Your task to perform on an android device: Is it going to rain today? Image 0: 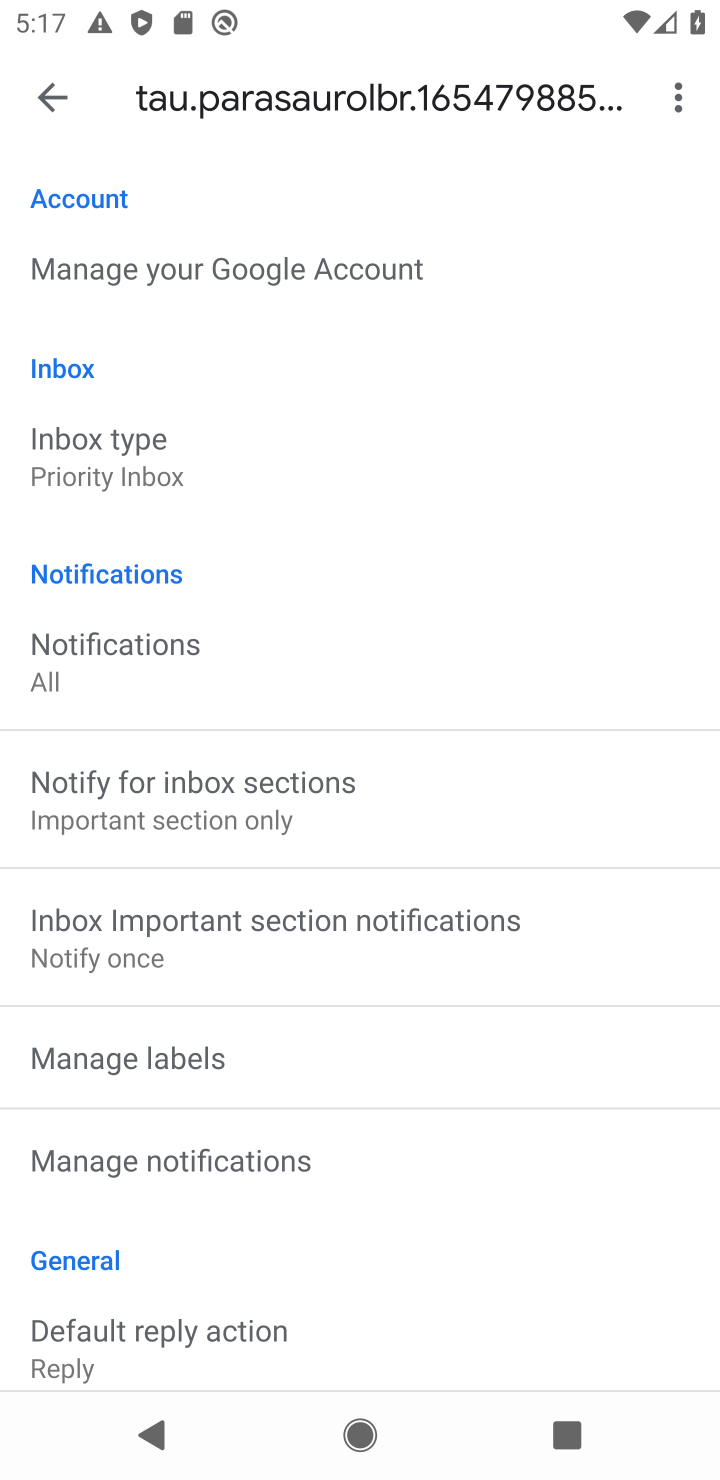
Step 0: press home button
Your task to perform on an android device: Is it going to rain today? Image 1: 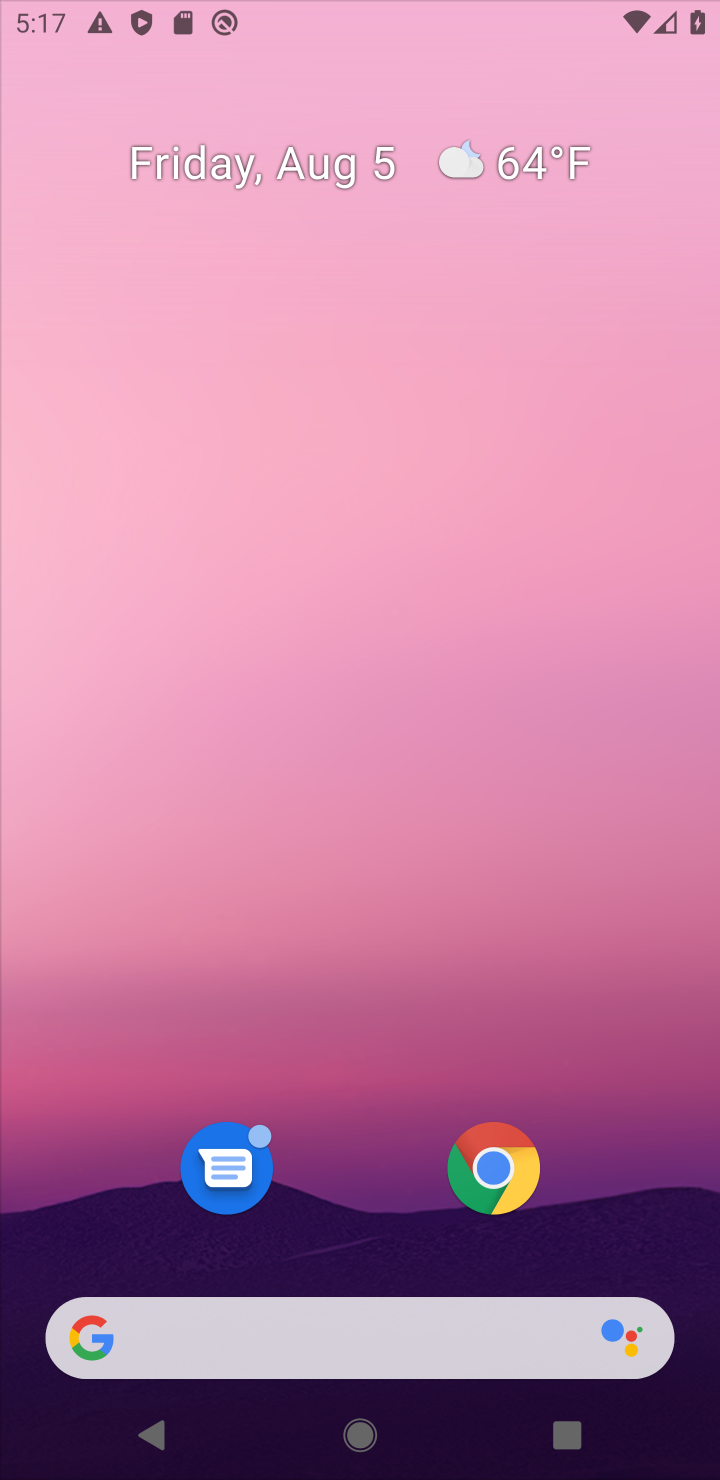
Step 1: press home button
Your task to perform on an android device: Is it going to rain today? Image 2: 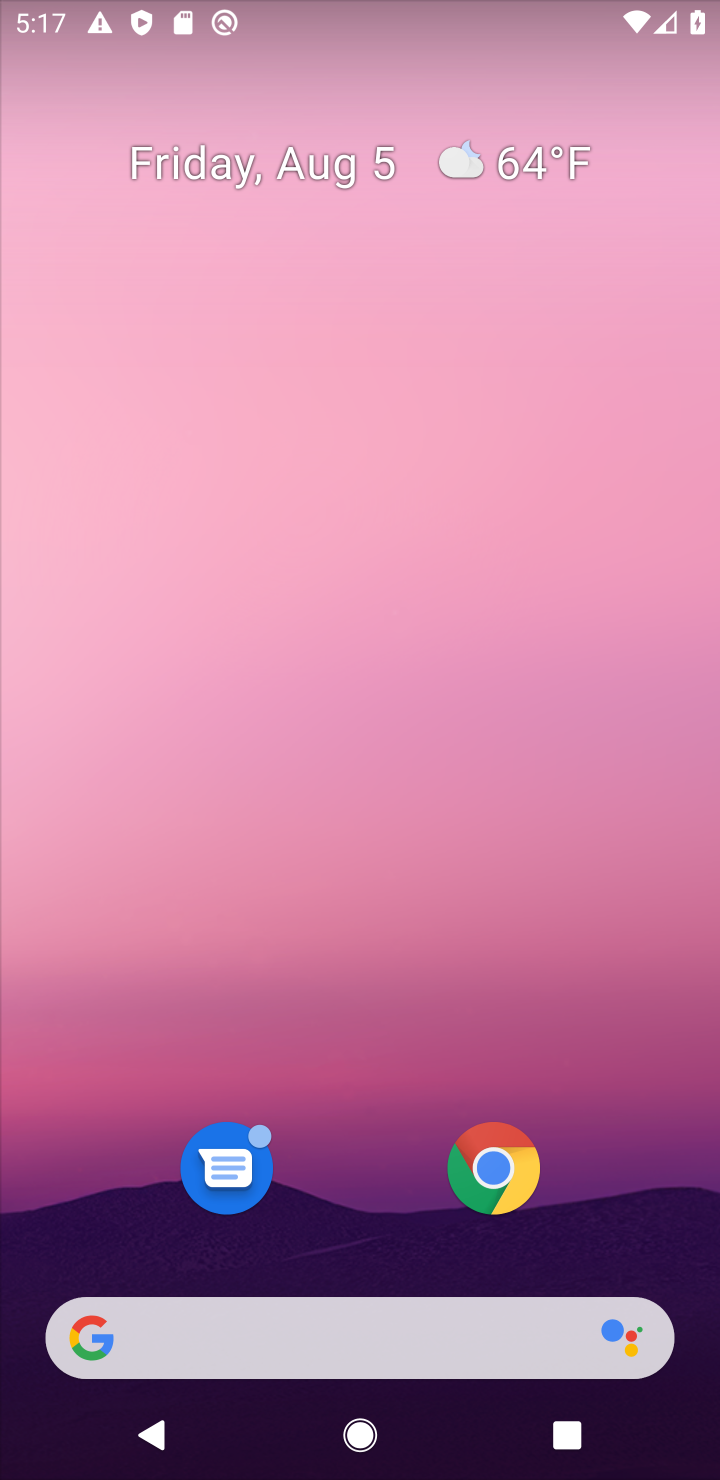
Step 2: click (80, 1333)
Your task to perform on an android device: Is it going to rain today? Image 3: 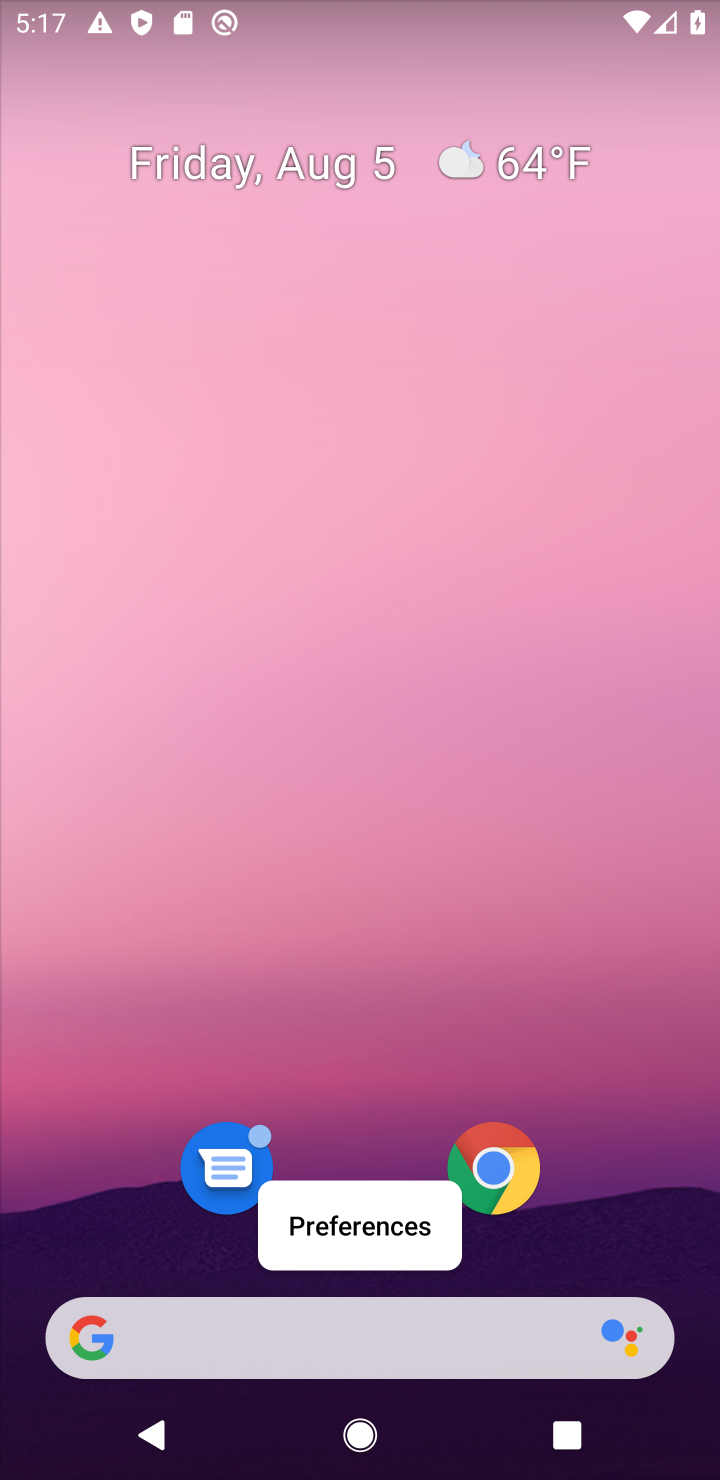
Step 3: click (65, 1331)
Your task to perform on an android device: Is it going to rain today? Image 4: 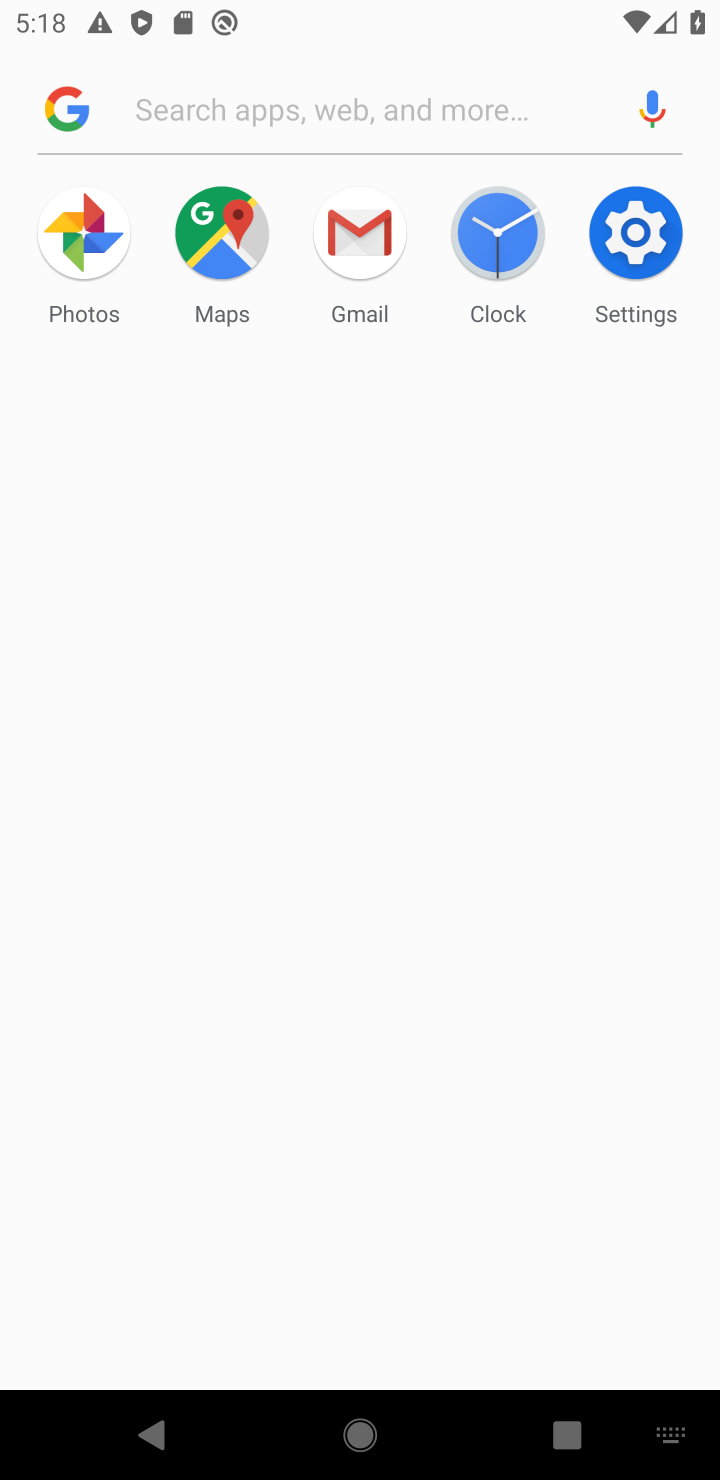
Step 4: type " rain today?"
Your task to perform on an android device: Is it going to rain today? Image 5: 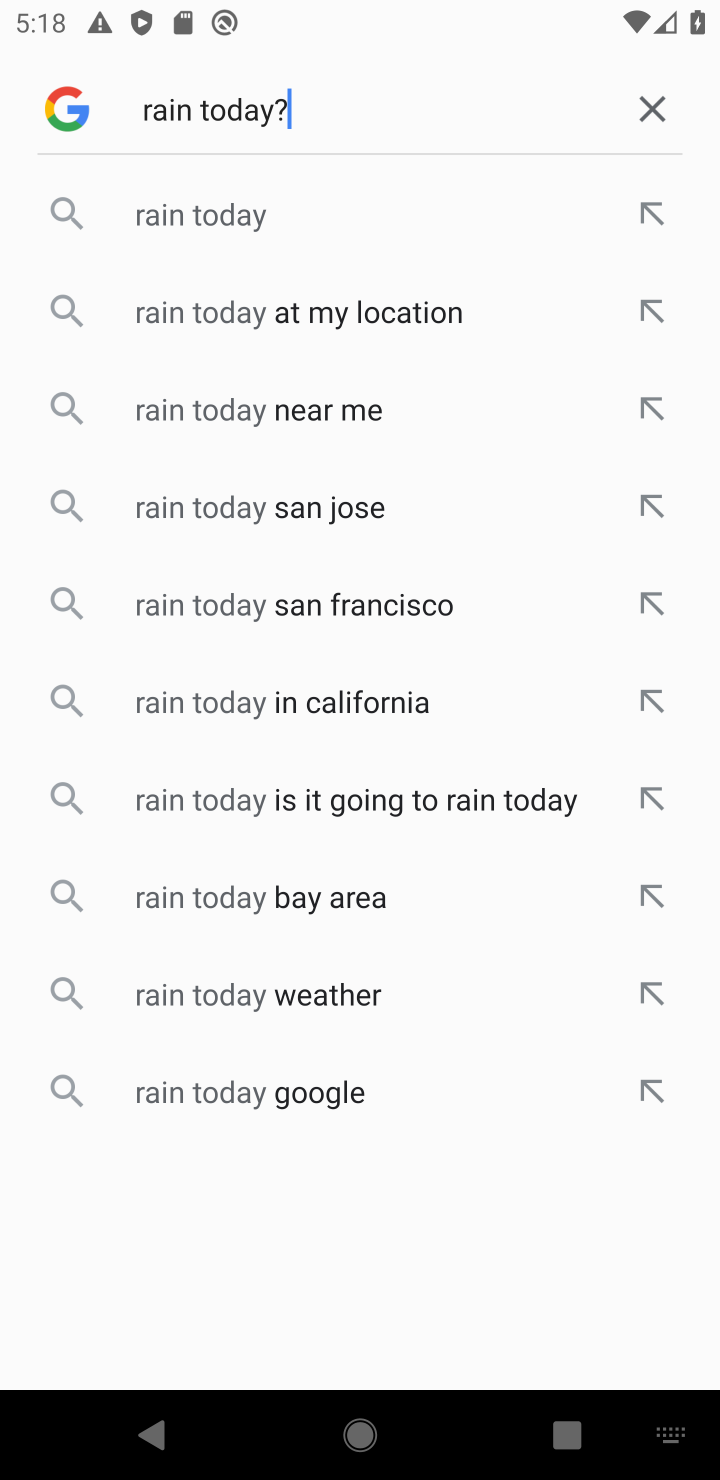
Step 5: press enter
Your task to perform on an android device: Is it going to rain today? Image 6: 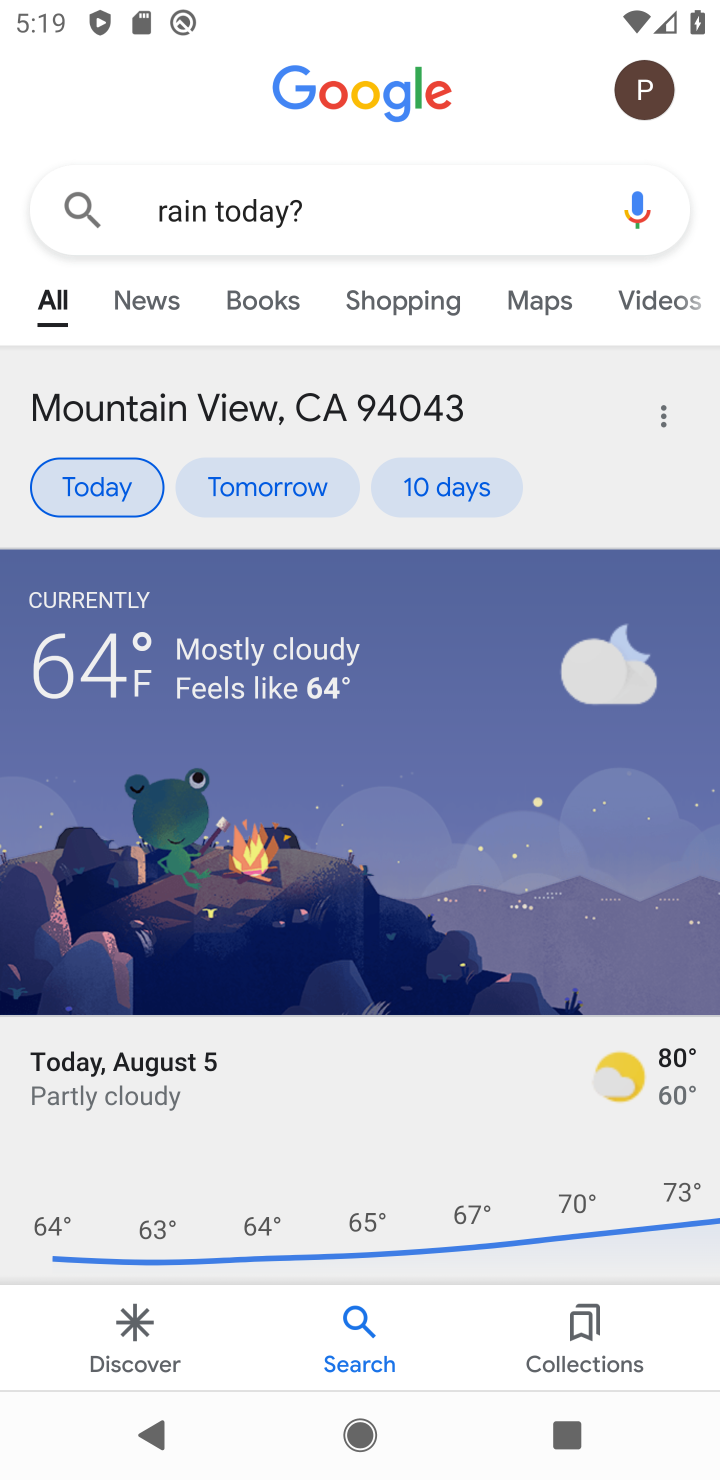
Step 6: task complete